Your task to perform on an android device: Search for the best rated desk chair on Article.com Image 0: 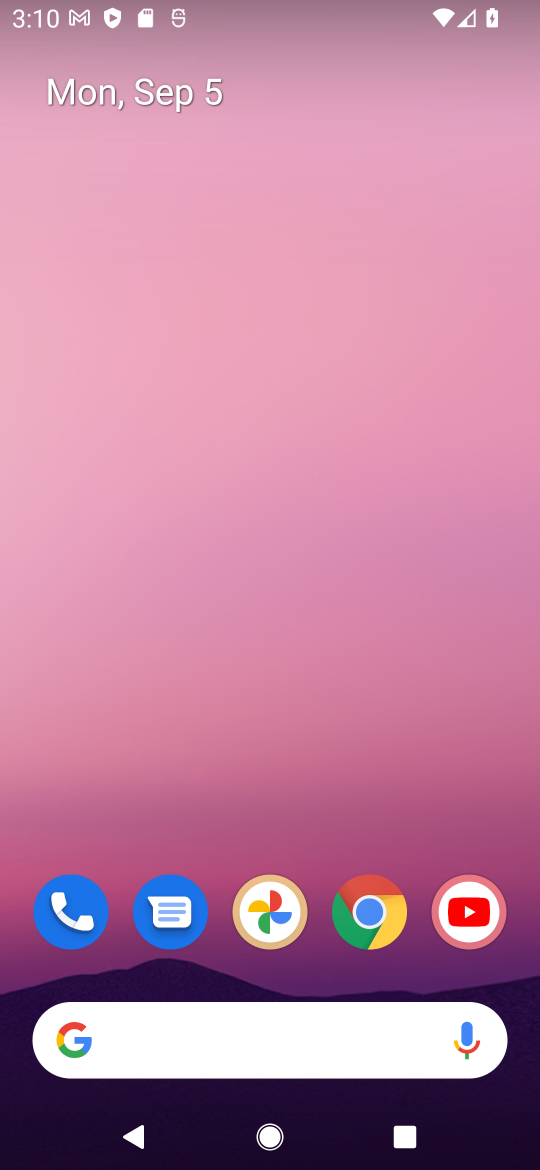
Step 0: click (368, 923)
Your task to perform on an android device: Search for the best rated desk chair on Article.com Image 1: 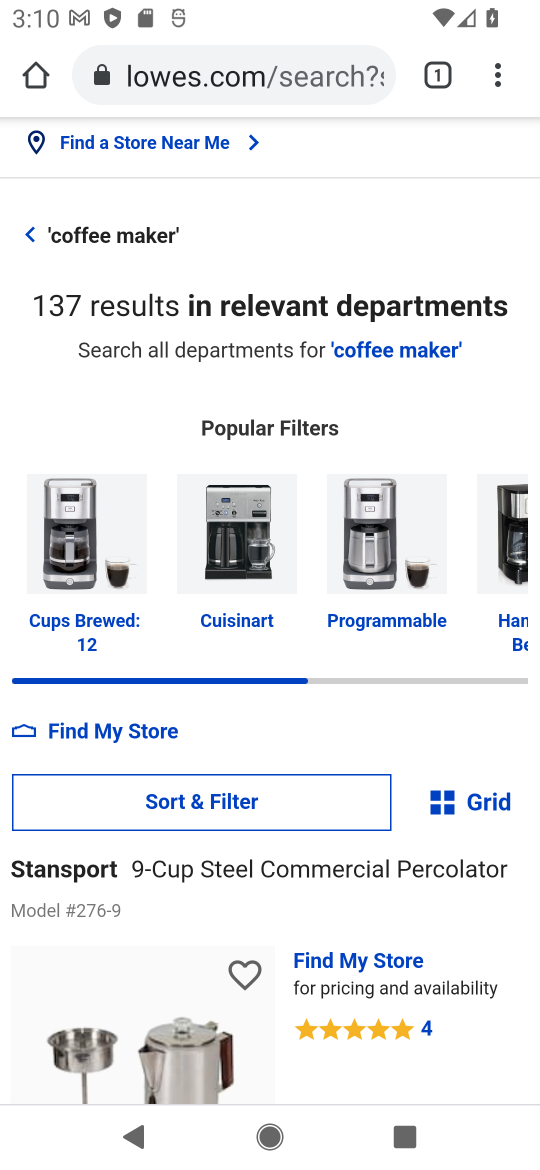
Step 1: click (199, 80)
Your task to perform on an android device: Search for the best rated desk chair on Article.com Image 2: 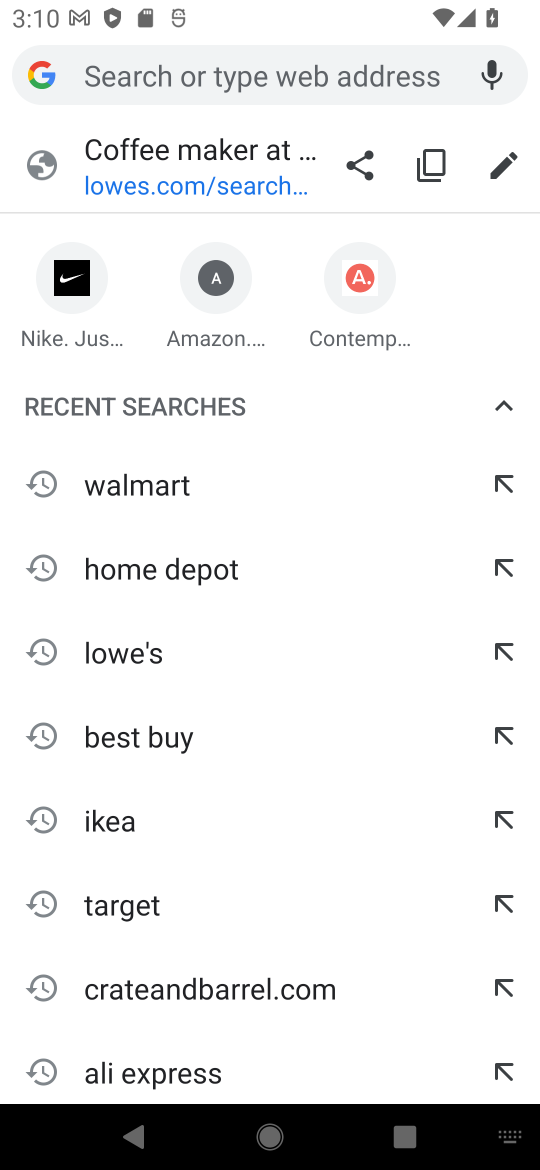
Step 2: type "article.com"
Your task to perform on an android device: Search for the best rated desk chair on Article.com Image 3: 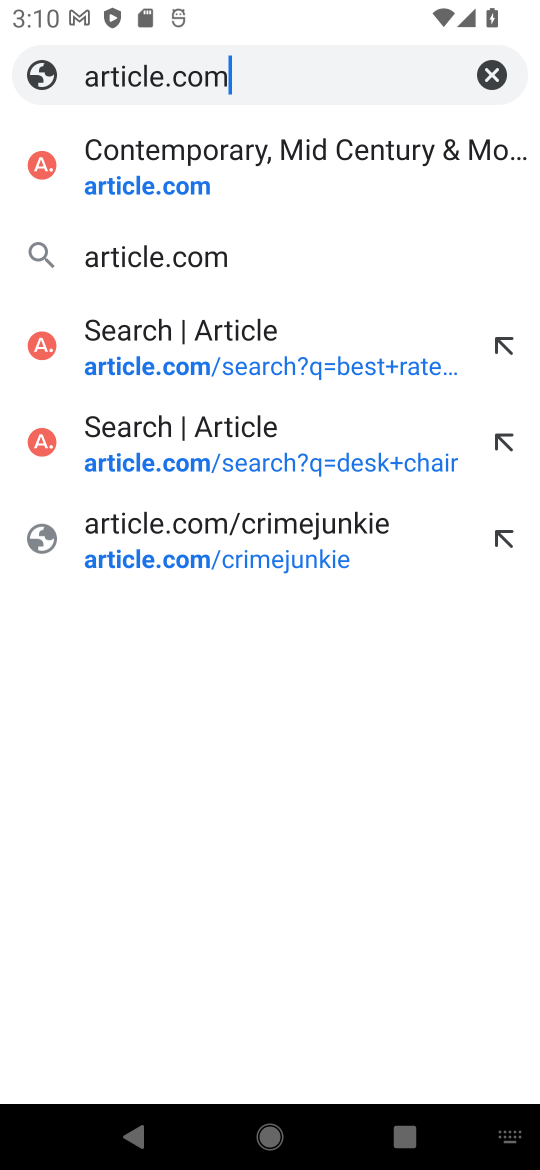
Step 3: press enter
Your task to perform on an android device: Search for the best rated desk chair on Article.com Image 4: 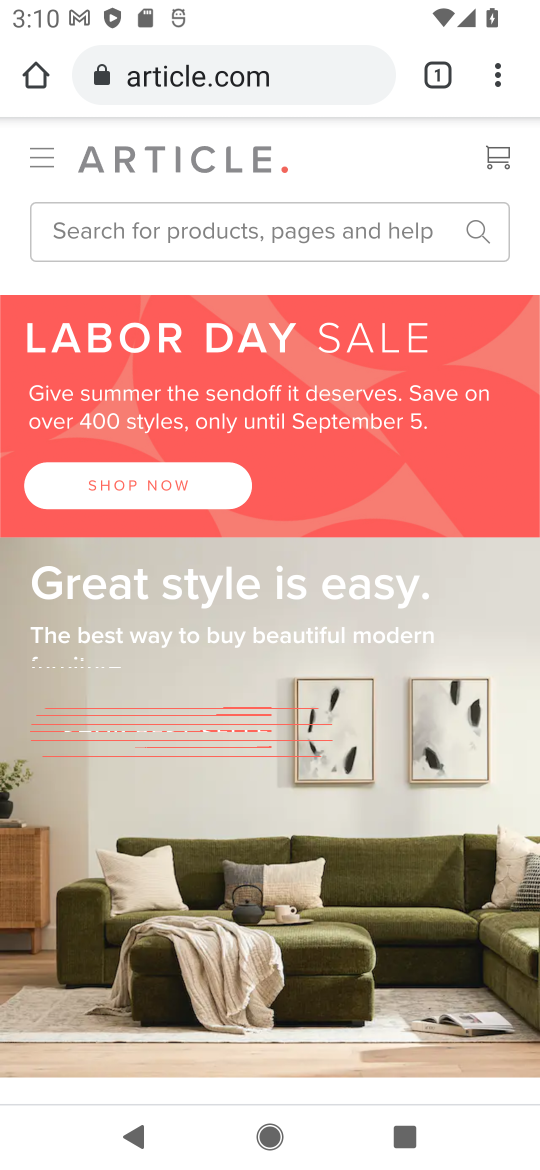
Step 4: click (274, 233)
Your task to perform on an android device: Search for the best rated desk chair on Article.com Image 5: 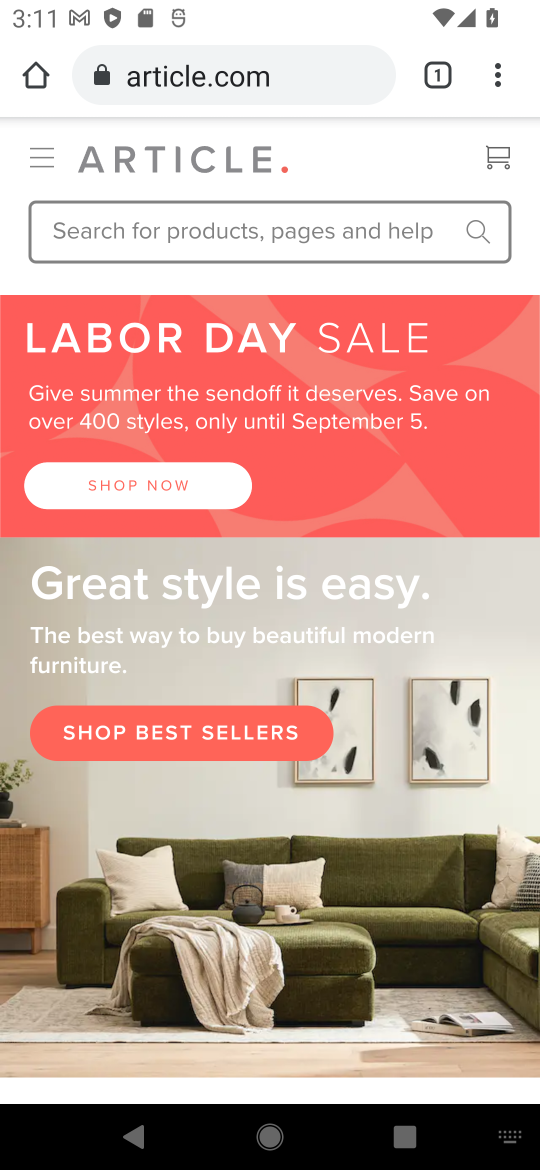
Step 5: type "best rated desk chair"
Your task to perform on an android device: Search for the best rated desk chair on Article.com Image 6: 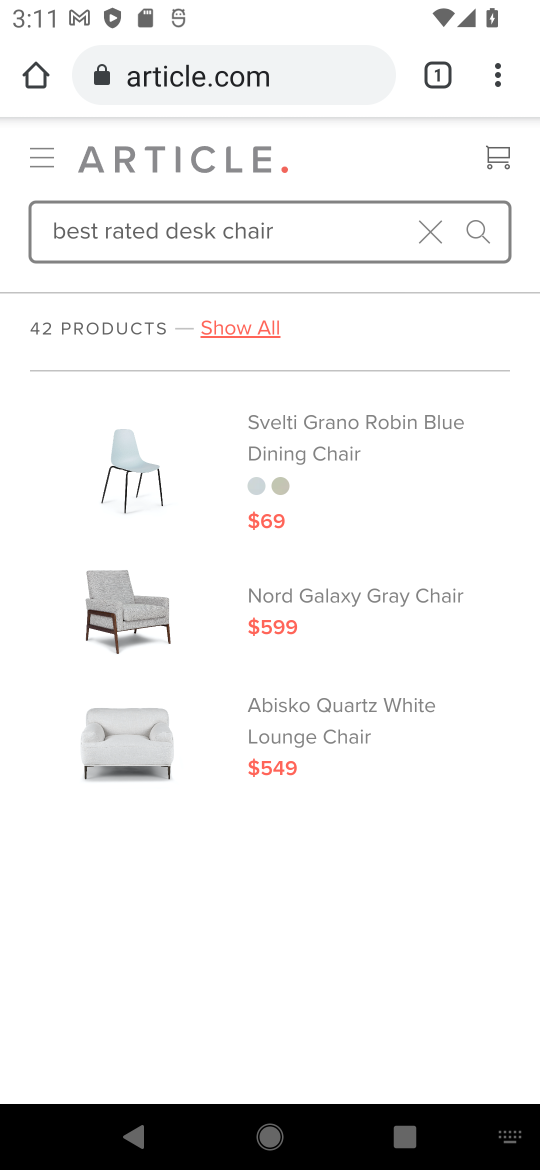
Step 6: press enter
Your task to perform on an android device: Search for the best rated desk chair on Article.com Image 7: 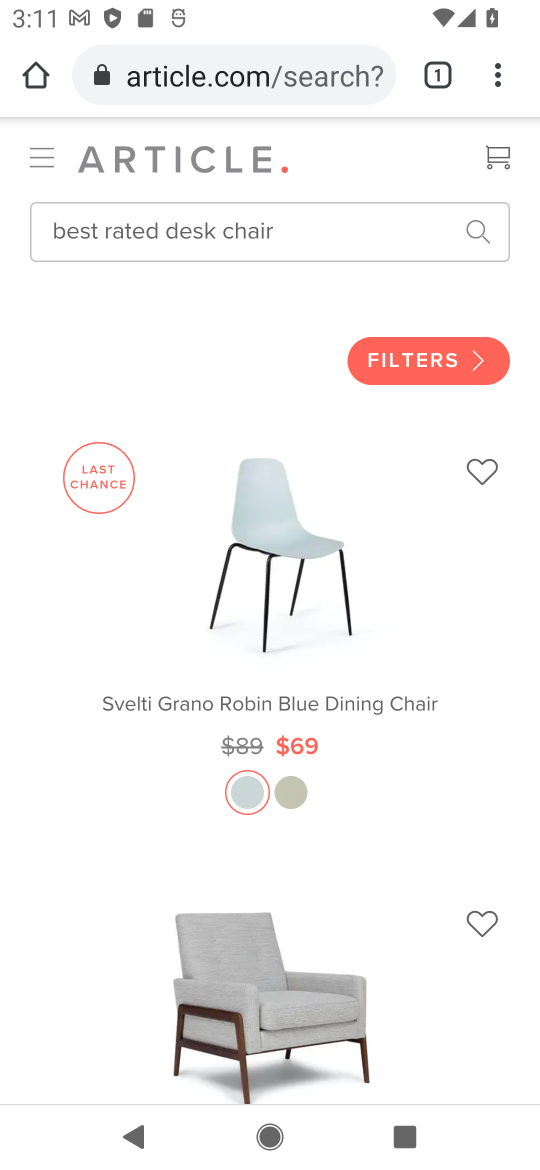
Step 7: click (445, 367)
Your task to perform on an android device: Search for the best rated desk chair on Article.com Image 8: 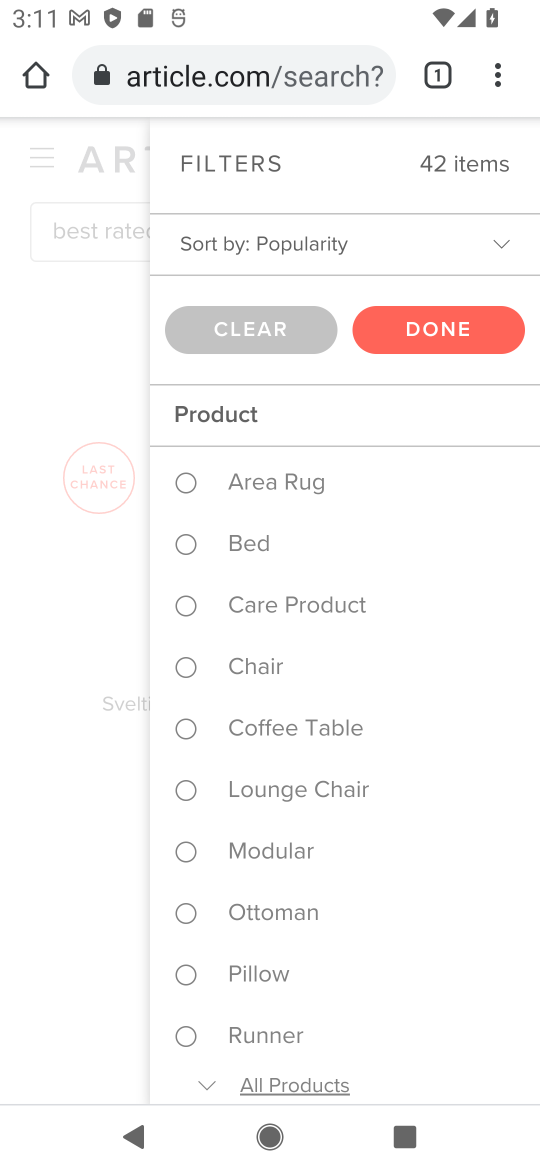
Step 8: click (484, 245)
Your task to perform on an android device: Search for the best rated desk chair on Article.com Image 9: 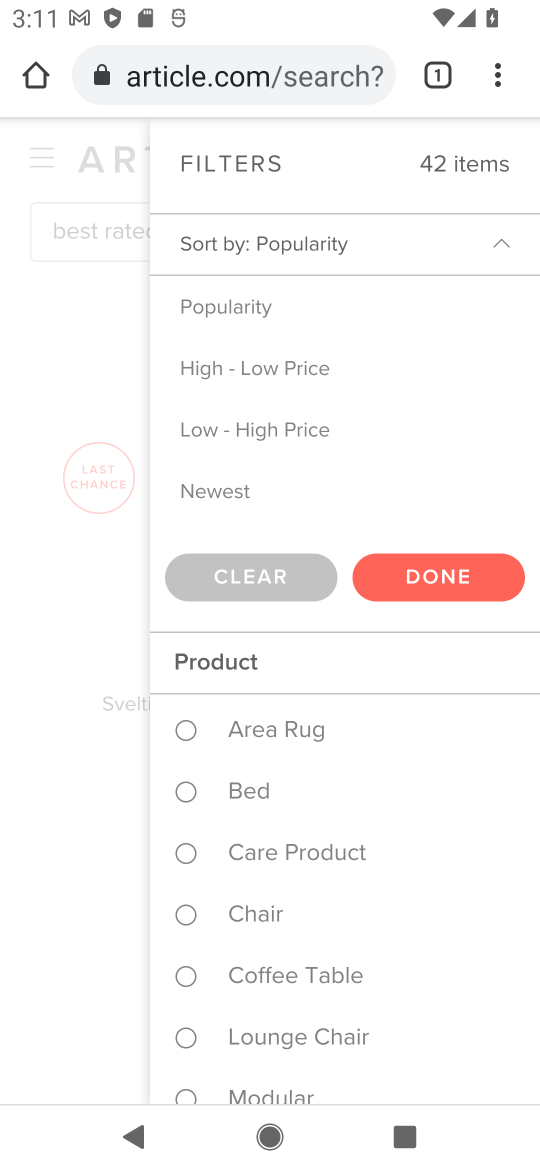
Step 9: click (484, 245)
Your task to perform on an android device: Search for the best rated desk chair on Article.com Image 10: 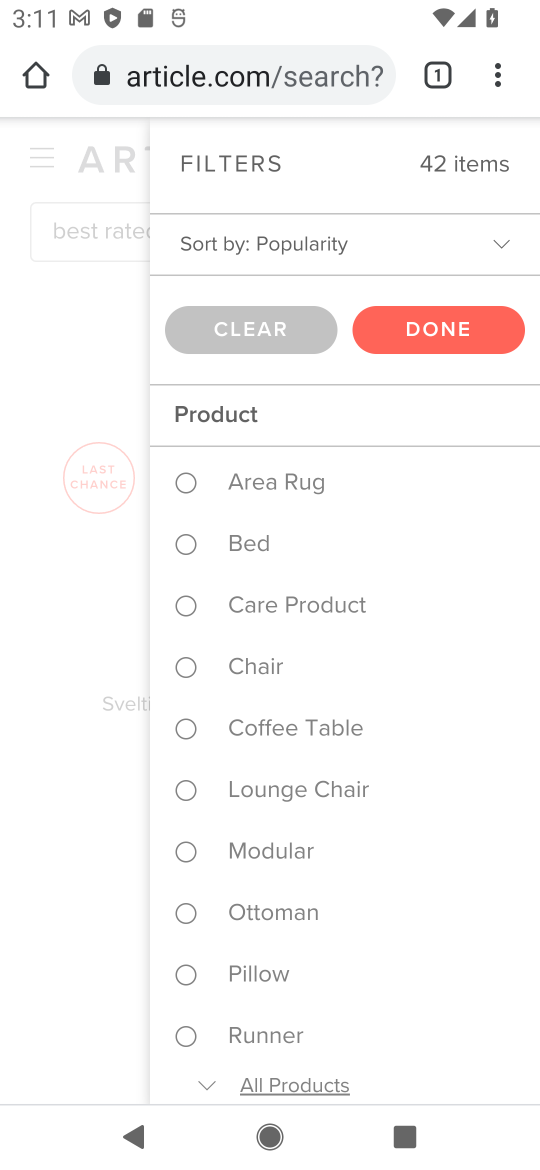
Step 10: task complete